Your task to perform on an android device: Go to battery settings Image 0: 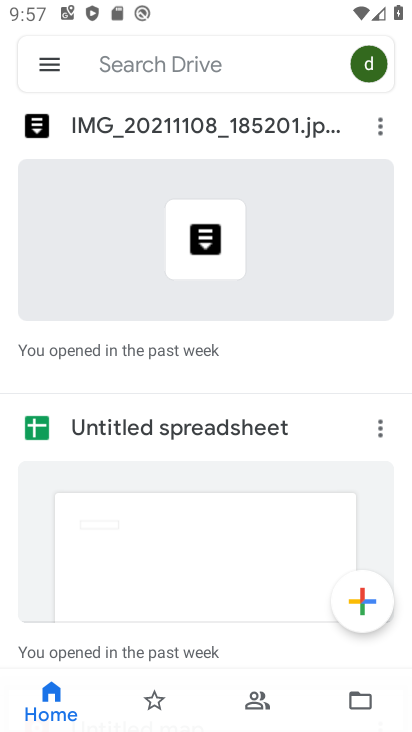
Step 0: press back button
Your task to perform on an android device: Go to battery settings Image 1: 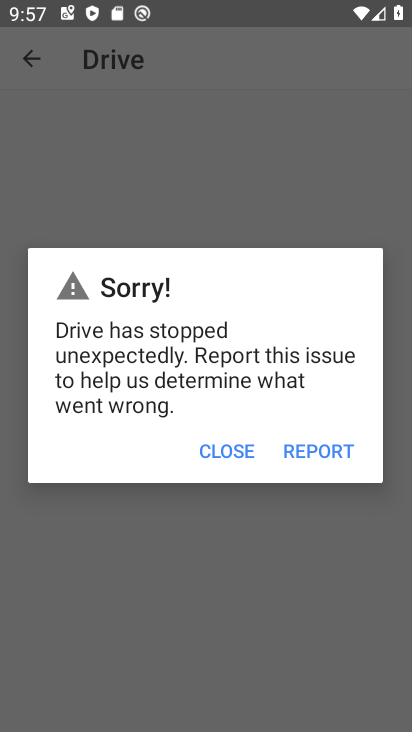
Step 1: press home button
Your task to perform on an android device: Go to battery settings Image 2: 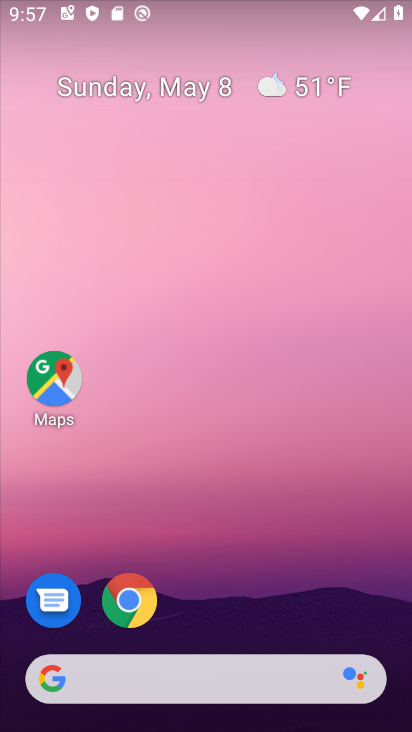
Step 2: drag from (249, 578) to (215, 51)
Your task to perform on an android device: Go to battery settings Image 3: 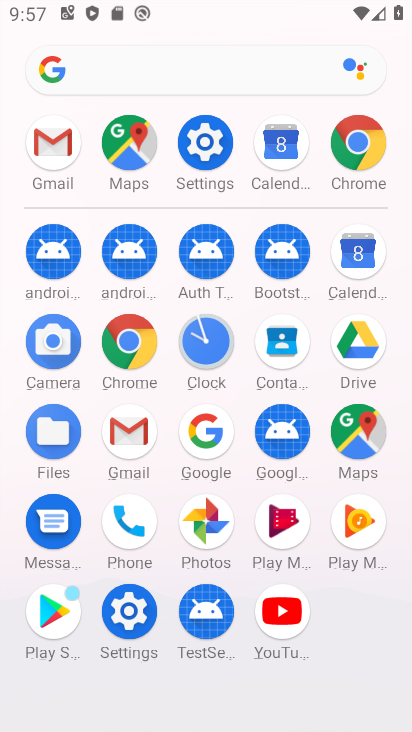
Step 3: click (202, 140)
Your task to perform on an android device: Go to battery settings Image 4: 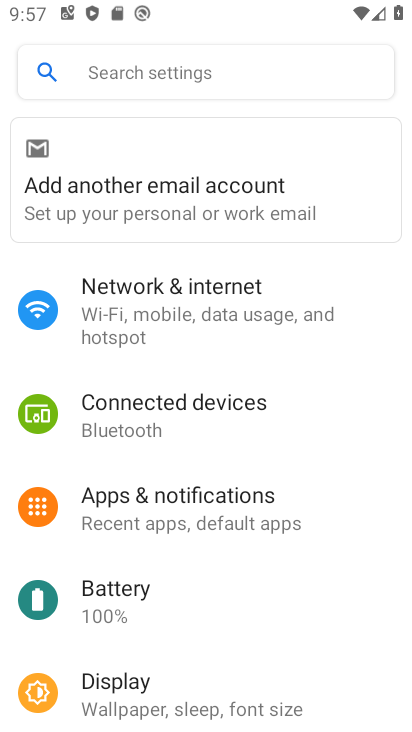
Step 4: drag from (302, 573) to (324, 214)
Your task to perform on an android device: Go to battery settings Image 5: 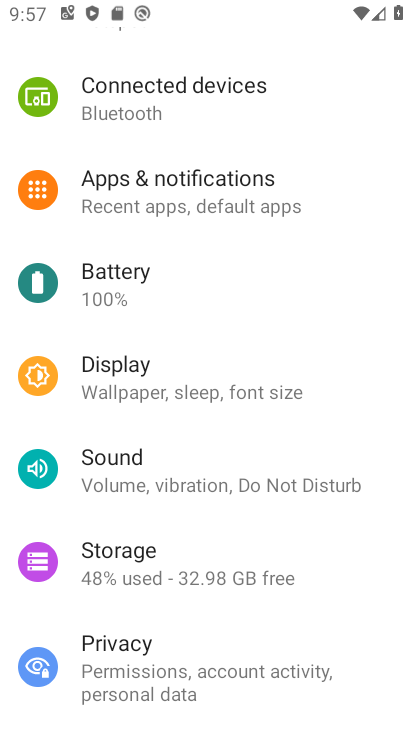
Step 5: click (179, 281)
Your task to perform on an android device: Go to battery settings Image 6: 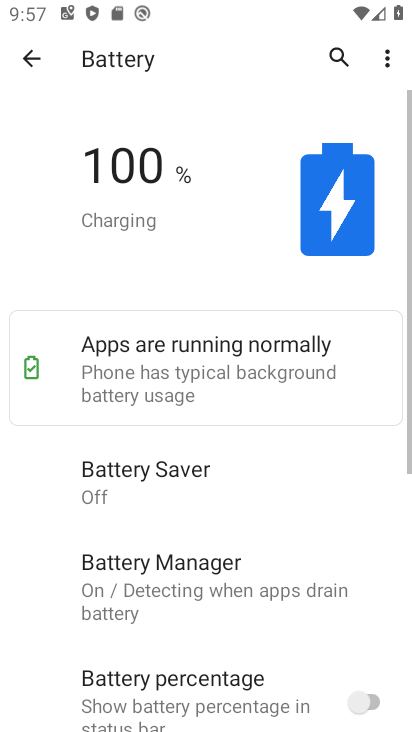
Step 6: task complete